Your task to perform on an android device: Go to Wikipedia Image 0: 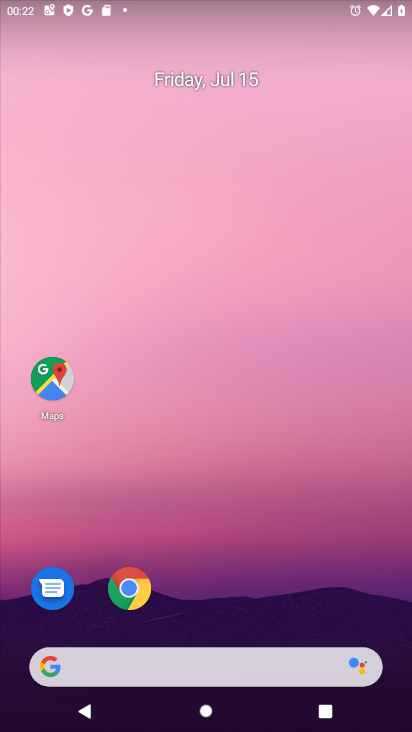
Step 0: press home button
Your task to perform on an android device: Go to Wikipedia Image 1: 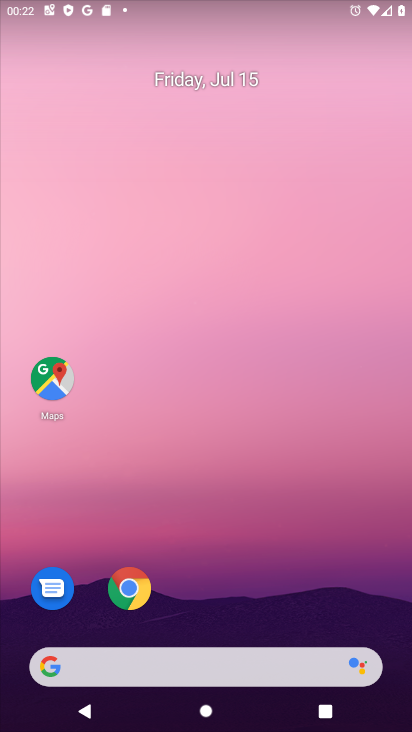
Step 1: click (118, 586)
Your task to perform on an android device: Go to Wikipedia Image 2: 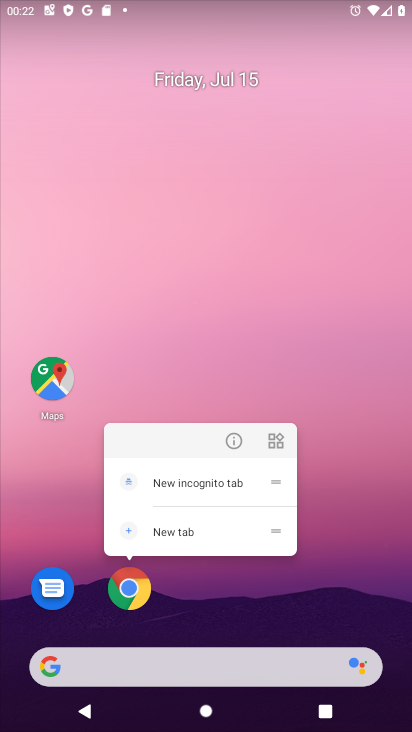
Step 2: click (125, 586)
Your task to perform on an android device: Go to Wikipedia Image 3: 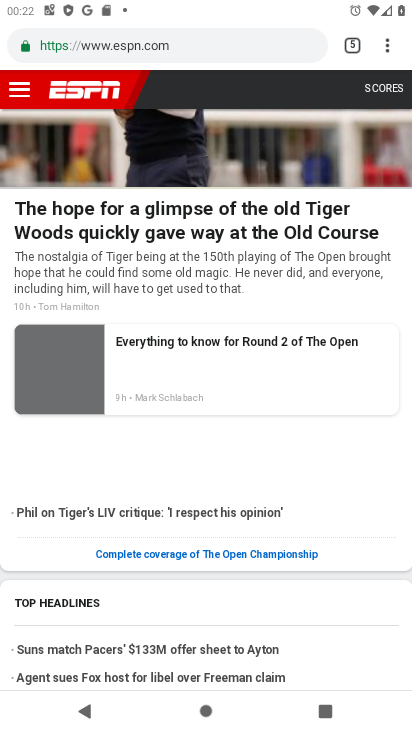
Step 3: drag from (392, 41) to (238, 91)
Your task to perform on an android device: Go to Wikipedia Image 4: 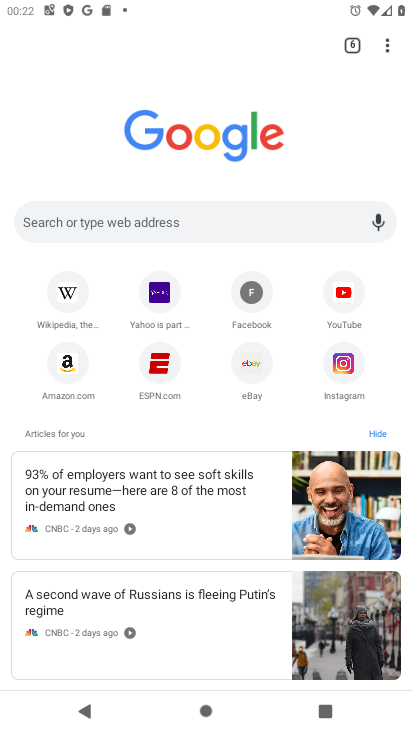
Step 4: click (72, 300)
Your task to perform on an android device: Go to Wikipedia Image 5: 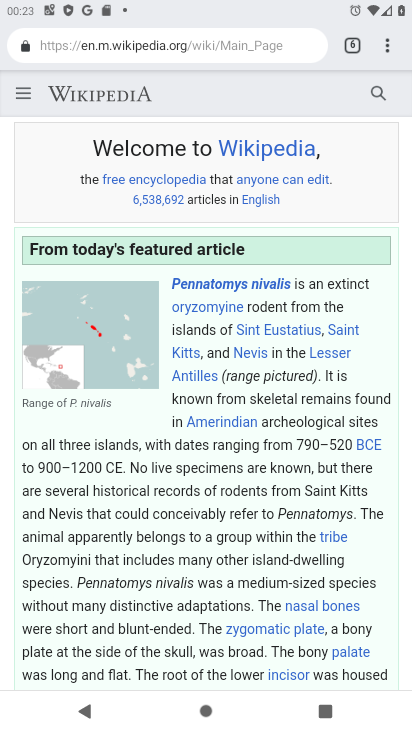
Step 5: task complete